Your task to perform on an android device: Open eBay Image 0: 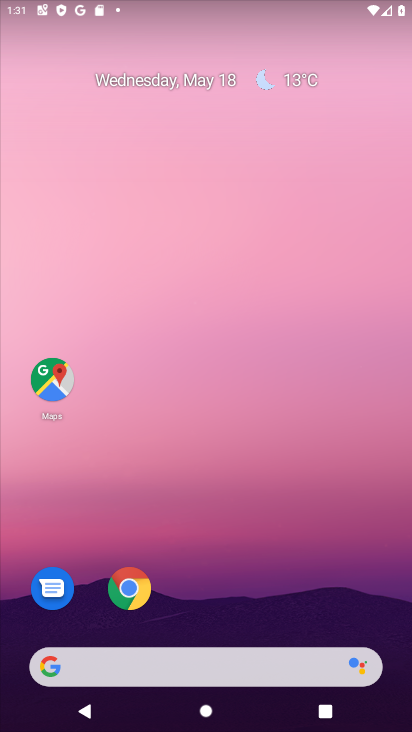
Step 0: drag from (192, 621) to (212, 113)
Your task to perform on an android device: Open eBay Image 1: 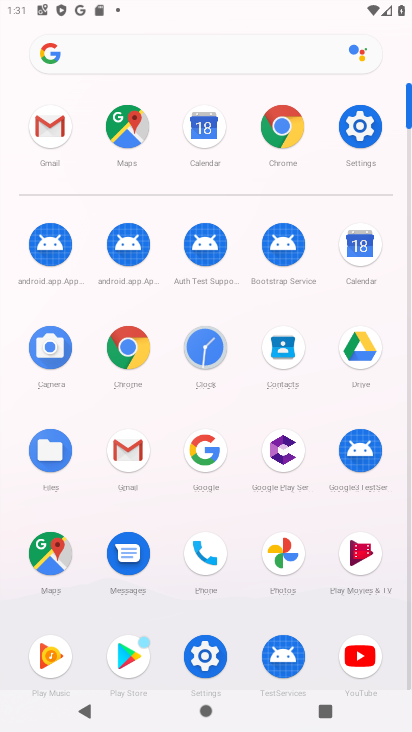
Step 1: click (166, 46)
Your task to perform on an android device: Open eBay Image 2: 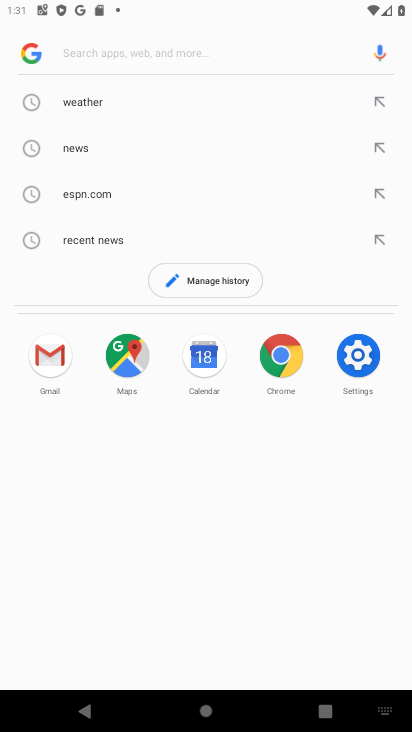
Step 2: type "ebay"
Your task to perform on an android device: Open eBay Image 3: 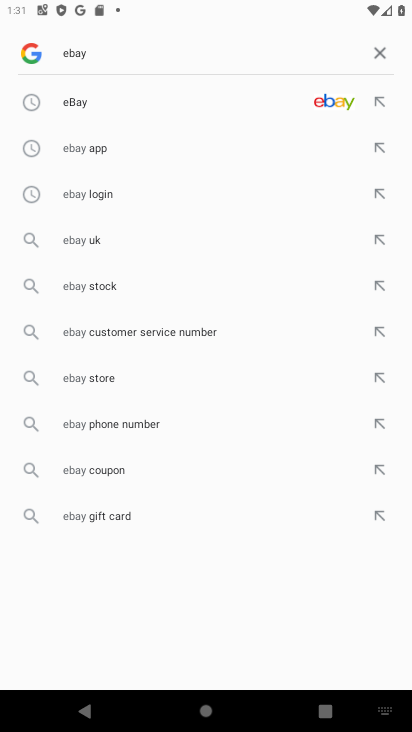
Step 3: click (167, 114)
Your task to perform on an android device: Open eBay Image 4: 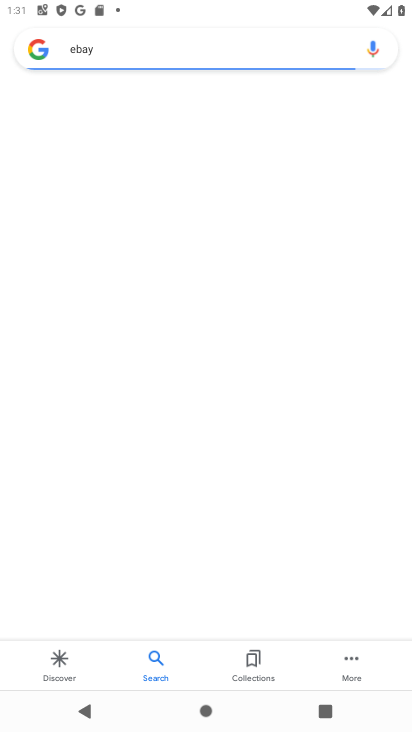
Step 4: drag from (198, 518) to (227, 313)
Your task to perform on an android device: Open eBay Image 5: 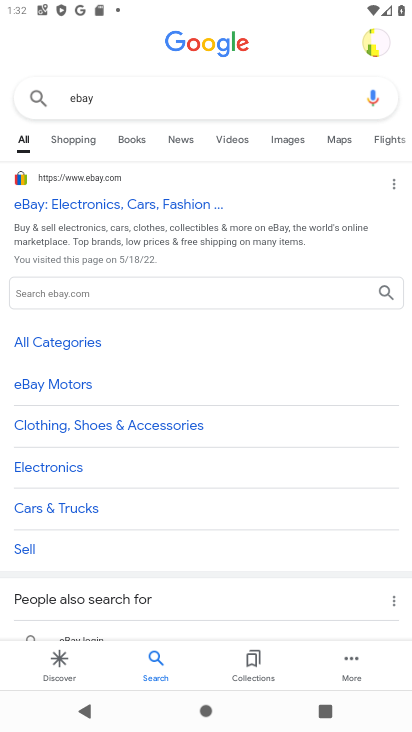
Step 5: drag from (209, 511) to (240, 680)
Your task to perform on an android device: Open eBay Image 6: 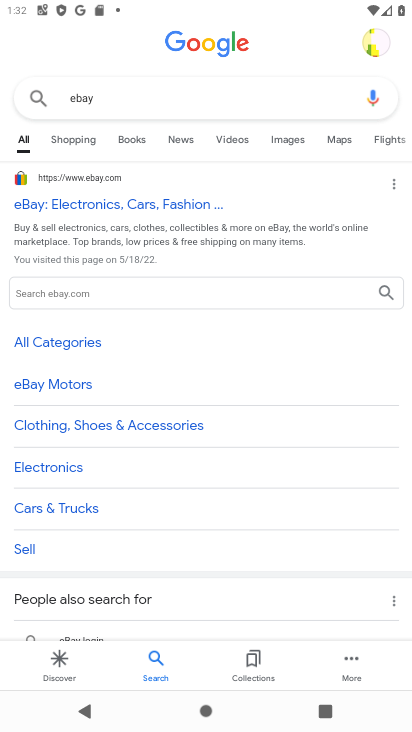
Step 6: click (83, 199)
Your task to perform on an android device: Open eBay Image 7: 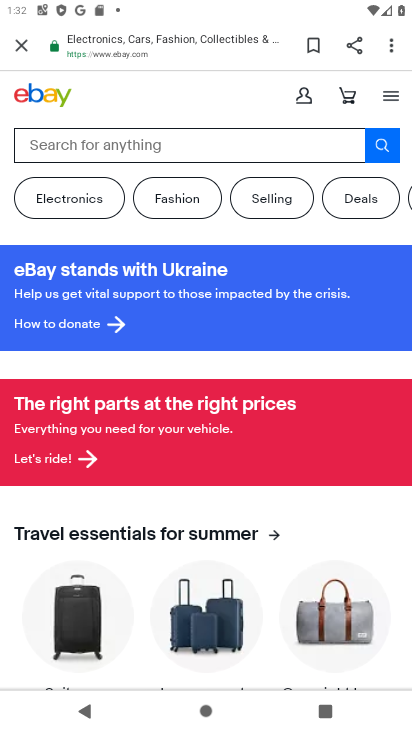
Step 7: task complete